Your task to perform on an android device: toggle pop-ups in chrome Image 0: 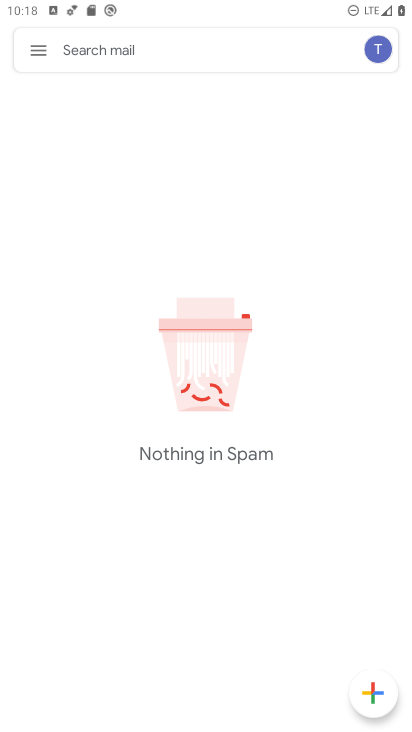
Step 0: press home button
Your task to perform on an android device: toggle pop-ups in chrome Image 1: 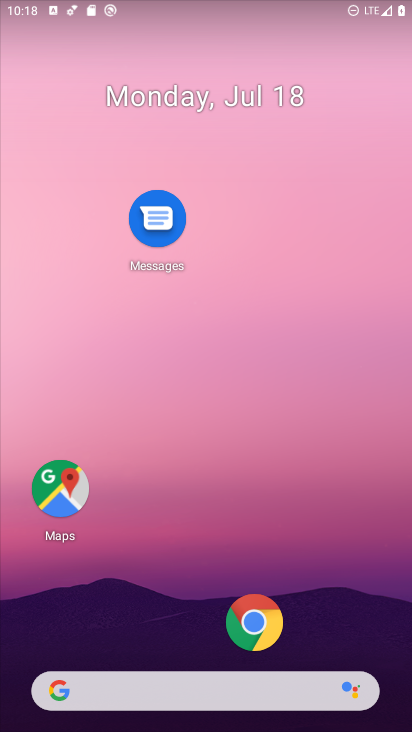
Step 1: drag from (199, 643) to (208, 96)
Your task to perform on an android device: toggle pop-ups in chrome Image 2: 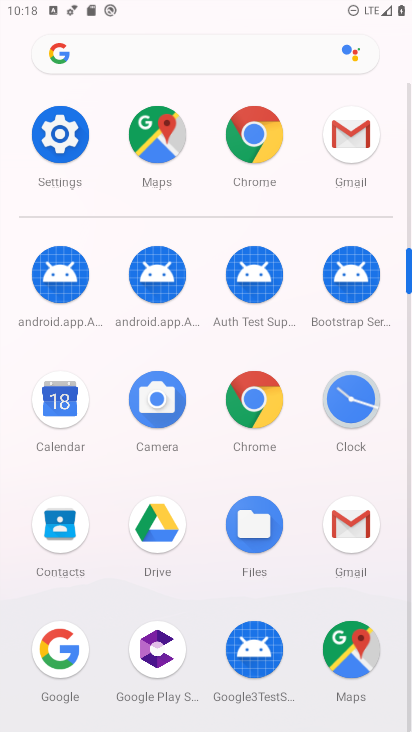
Step 2: click (260, 150)
Your task to perform on an android device: toggle pop-ups in chrome Image 3: 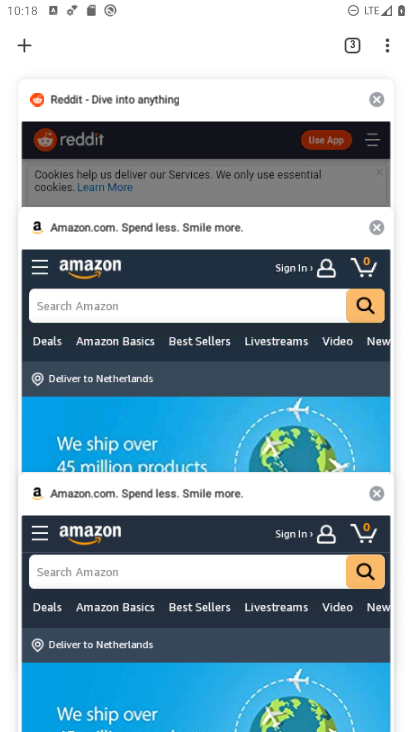
Step 3: click (227, 347)
Your task to perform on an android device: toggle pop-ups in chrome Image 4: 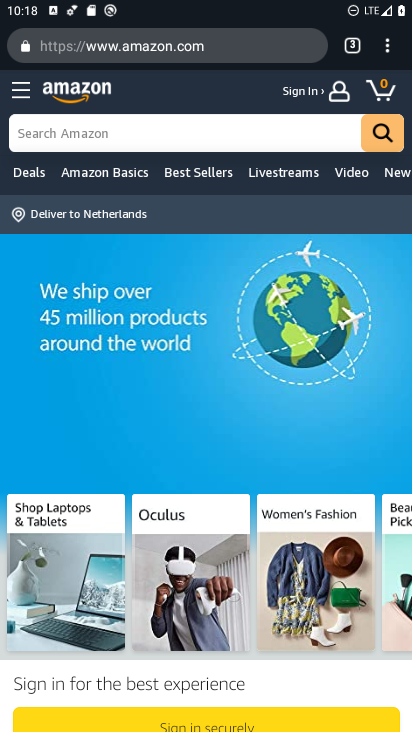
Step 4: click (390, 56)
Your task to perform on an android device: toggle pop-ups in chrome Image 5: 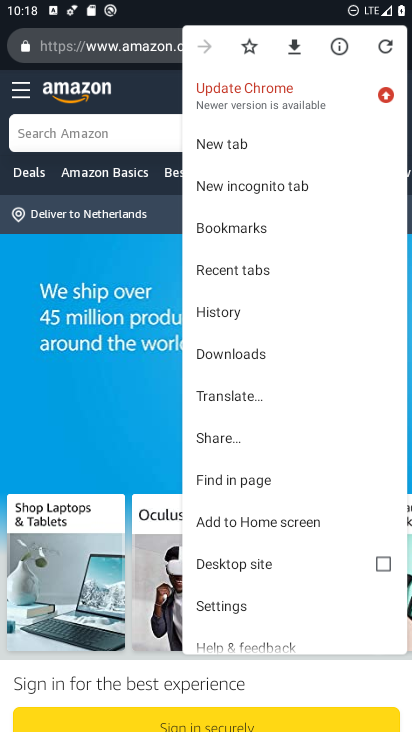
Step 5: click (210, 609)
Your task to perform on an android device: toggle pop-ups in chrome Image 6: 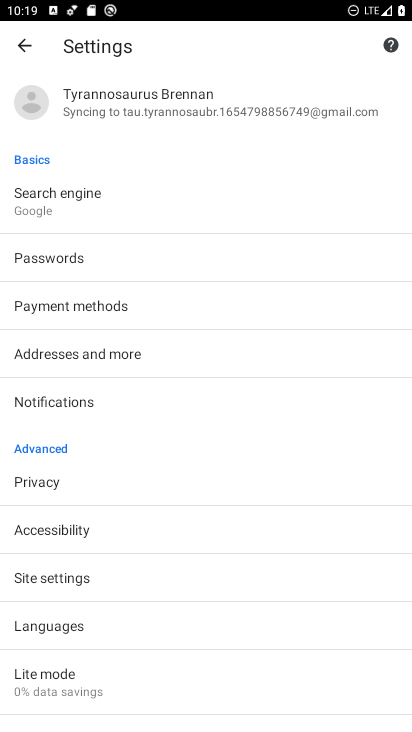
Step 6: drag from (89, 590) to (95, 452)
Your task to perform on an android device: toggle pop-ups in chrome Image 7: 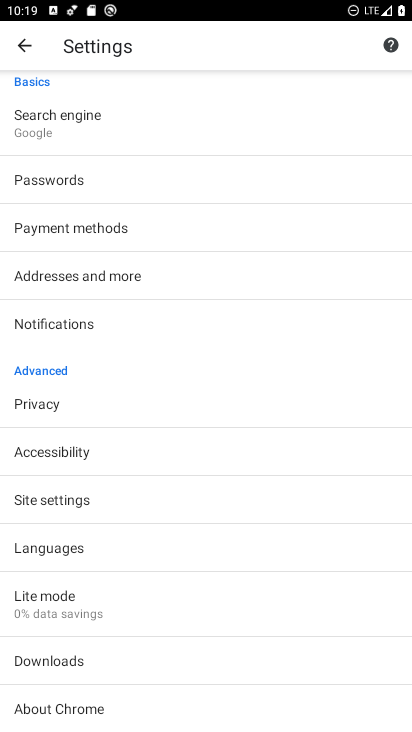
Step 7: click (78, 500)
Your task to perform on an android device: toggle pop-ups in chrome Image 8: 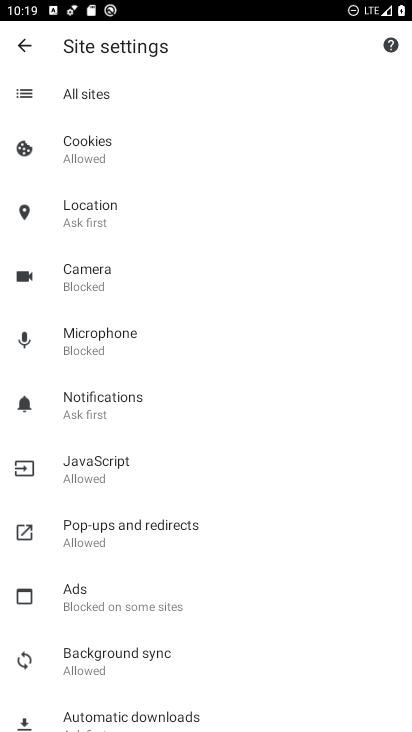
Step 8: click (120, 529)
Your task to perform on an android device: toggle pop-ups in chrome Image 9: 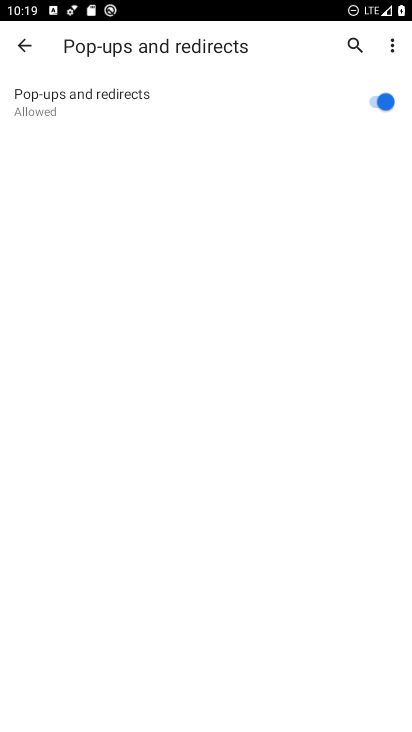
Step 9: click (371, 110)
Your task to perform on an android device: toggle pop-ups in chrome Image 10: 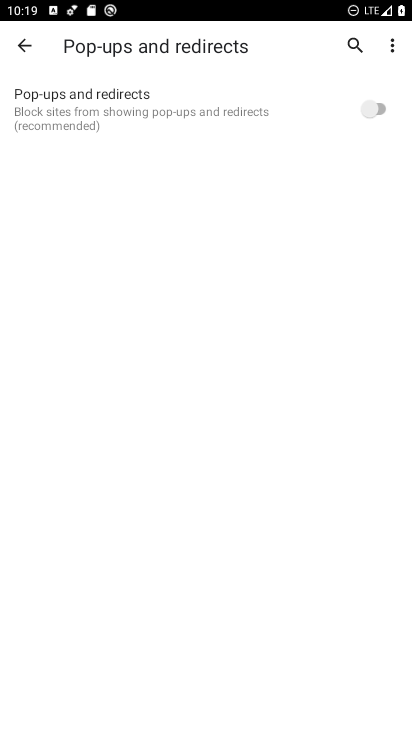
Step 10: task complete